Your task to perform on an android device: Open Yahoo.com Image 0: 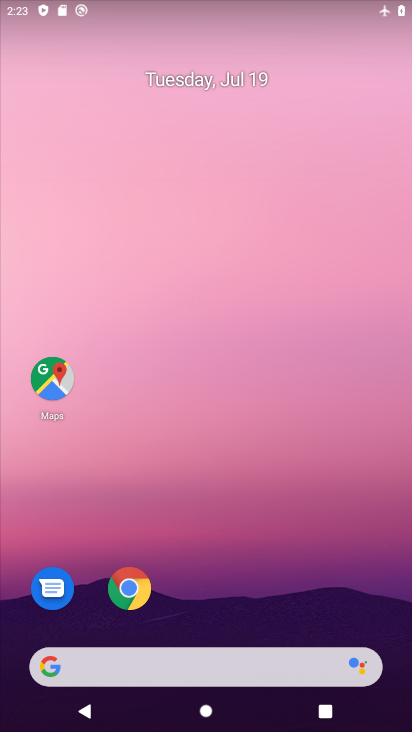
Step 0: press home button
Your task to perform on an android device: Open Yahoo.com Image 1: 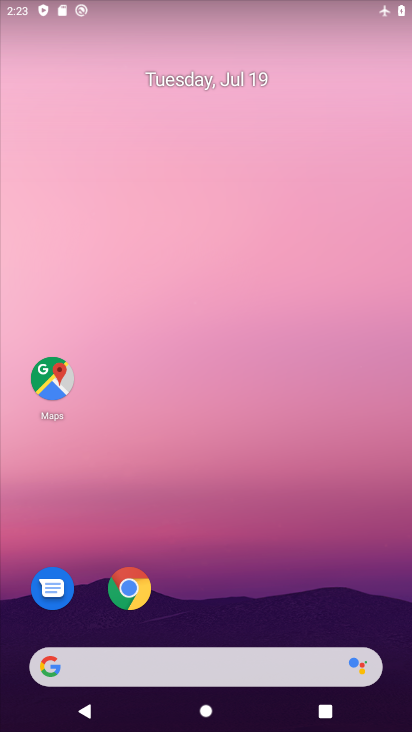
Step 1: click (52, 672)
Your task to perform on an android device: Open Yahoo.com Image 2: 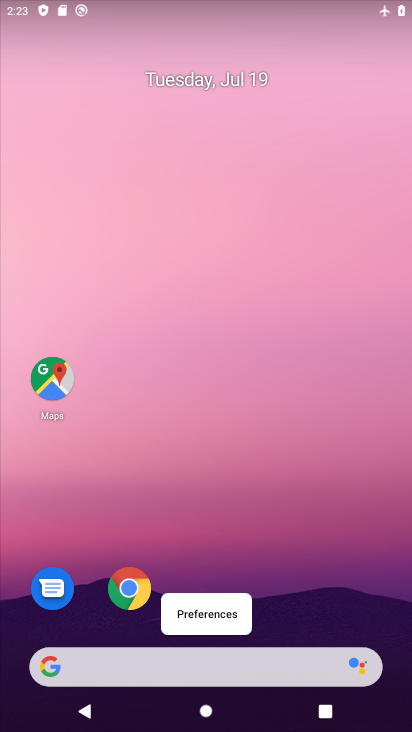
Step 2: click (52, 672)
Your task to perform on an android device: Open Yahoo.com Image 3: 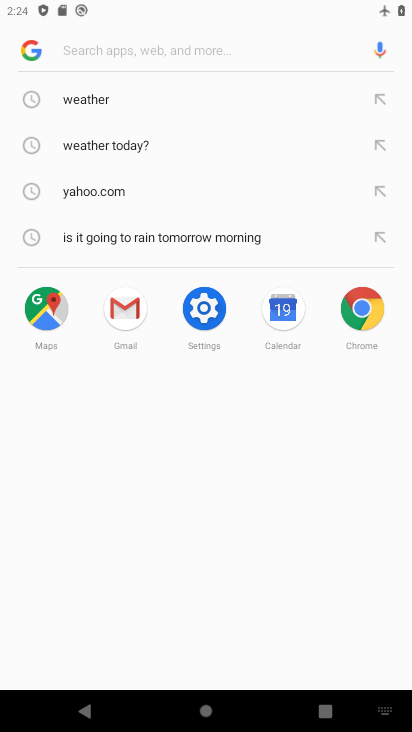
Step 3: click (100, 193)
Your task to perform on an android device: Open Yahoo.com Image 4: 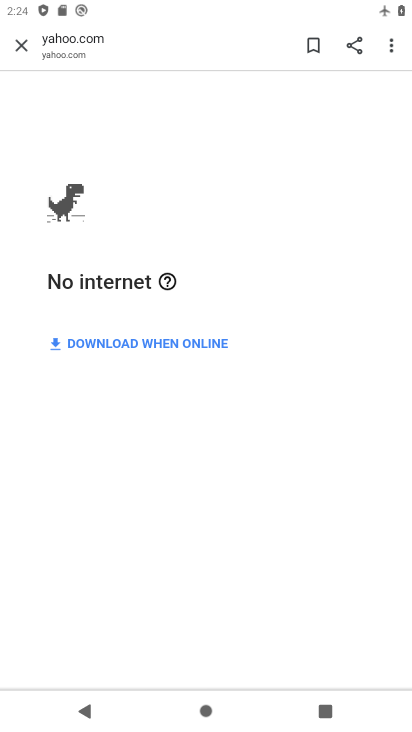
Step 4: drag from (210, 17) to (212, 555)
Your task to perform on an android device: Open Yahoo.com Image 5: 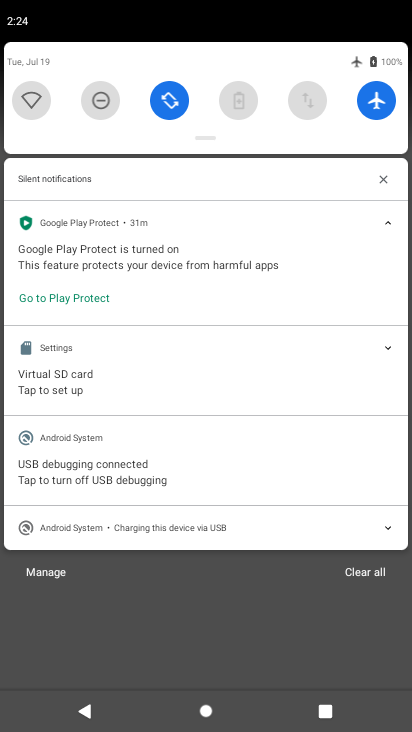
Step 5: click (32, 98)
Your task to perform on an android device: Open Yahoo.com Image 6: 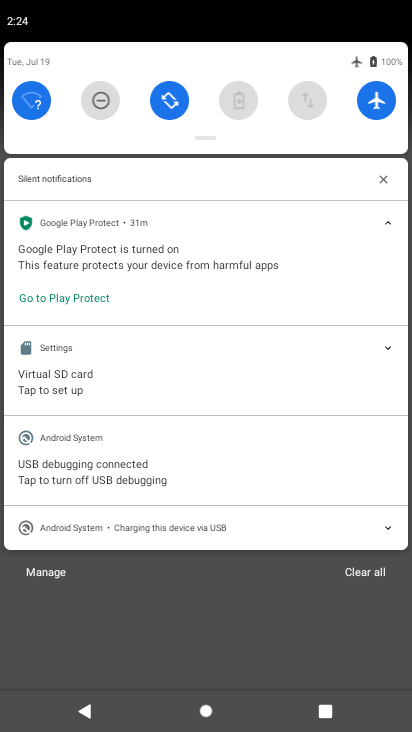
Step 6: drag from (238, 522) to (277, 23)
Your task to perform on an android device: Open Yahoo.com Image 7: 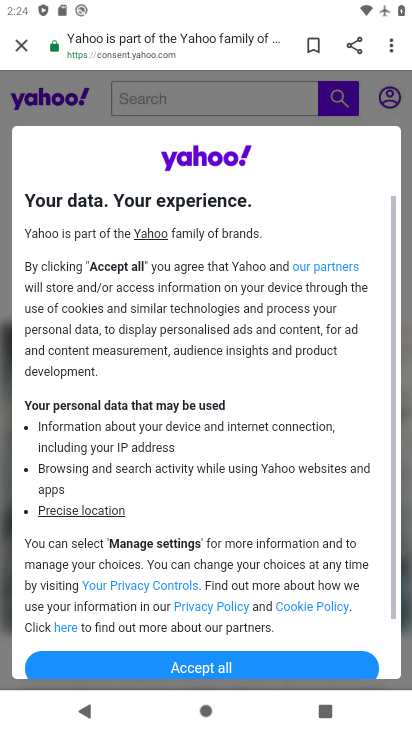
Step 7: click (162, 666)
Your task to perform on an android device: Open Yahoo.com Image 8: 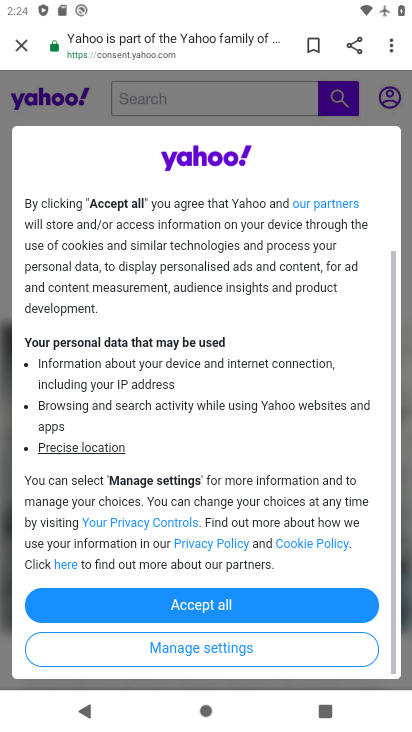
Step 8: click (200, 610)
Your task to perform on an android device: Open Yahoo.com Image 9: 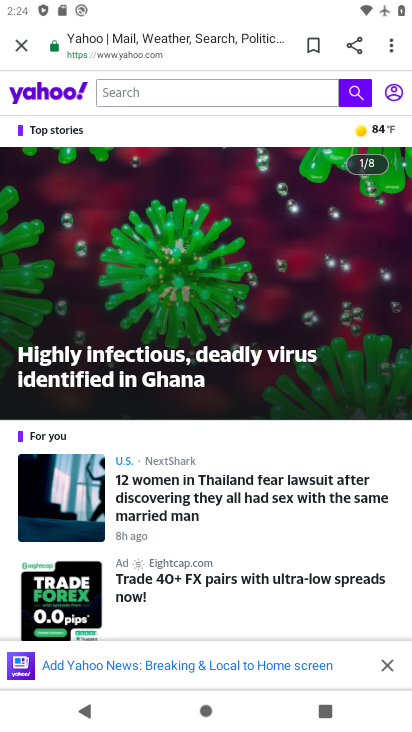
Step 9: task complete